Your task to perform on an android device: see sites visited before in the chrome app Image 0: 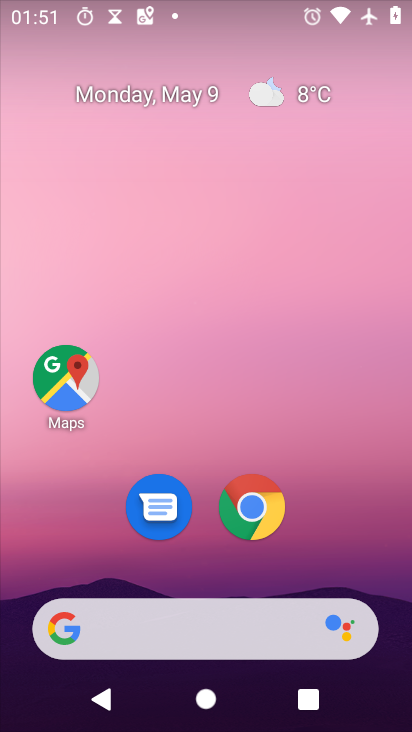
Step 0: click (251, 514)
Your task to perform on an android device: see sites visited before in the chrome app Image 1: 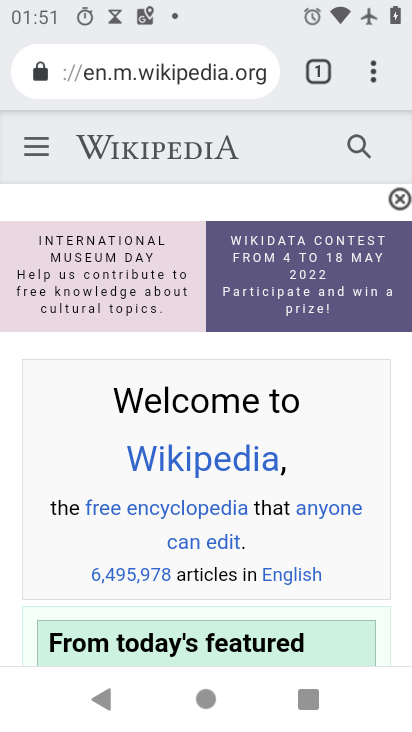
Step 1: click (373, 80)
Your task to perform on an android device: see sites visited before in the chrome app Image 2: 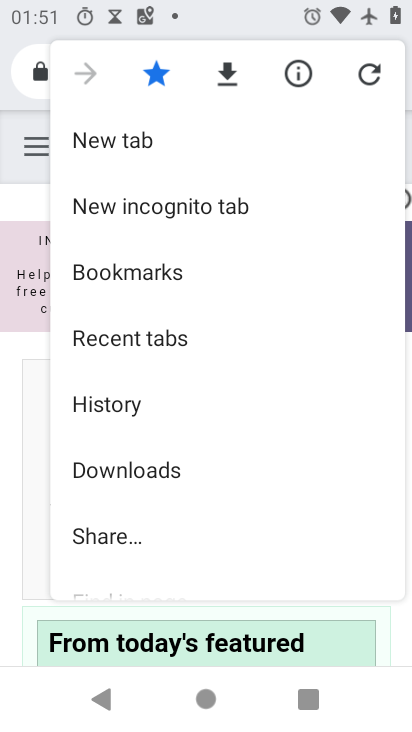
Step 2: click (112, 401)
Your task to perform on an android device: see sites visited before in the chrome app Image 3: 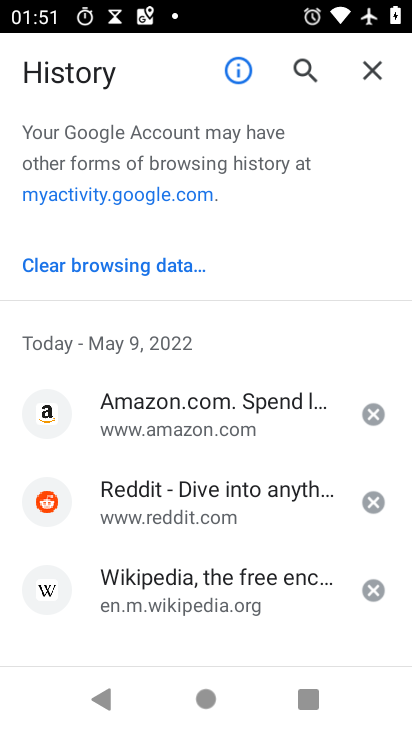
Step 3: task complete